Your task to perform on an android device: open sync settings in chrome Image 0: 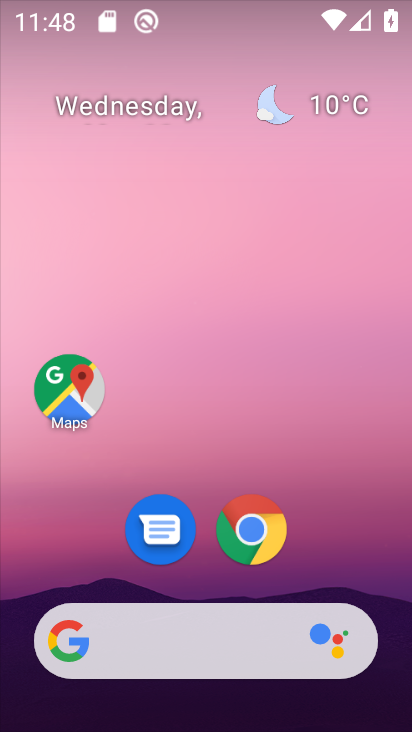
Step 0: click (240, 523)
Your task to perform on an android device: open sync settings in chrome Image 1: 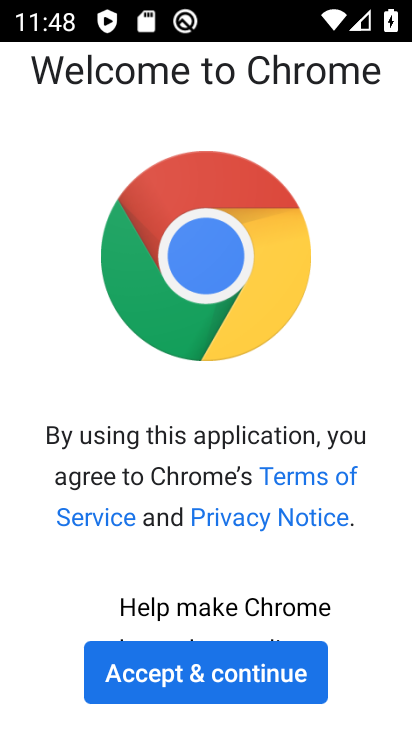
Step 1: click (225, 685)
Your task to perform on an android device: open sync settings in chrome Image 2: 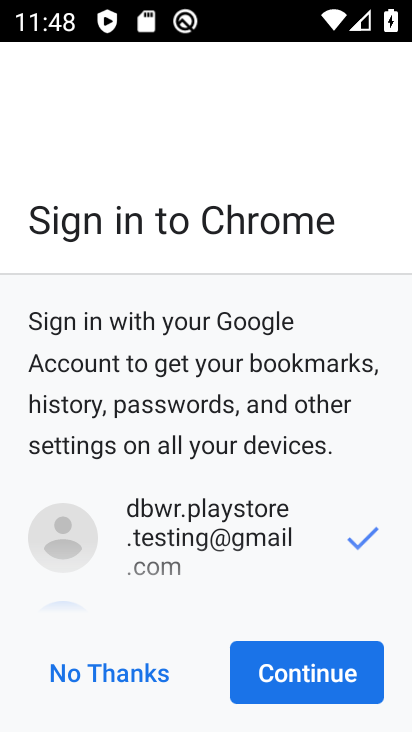
Step 2: click (332, 688)
Your task to perform on an android device: open sync settings in chrome Image 3: 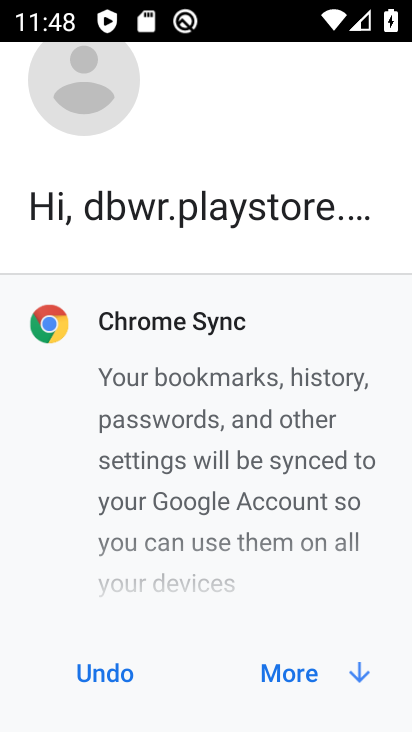
Step 3: click (343, 681)
Your task to perform on an android device: open sync settings in chrome Image 4: 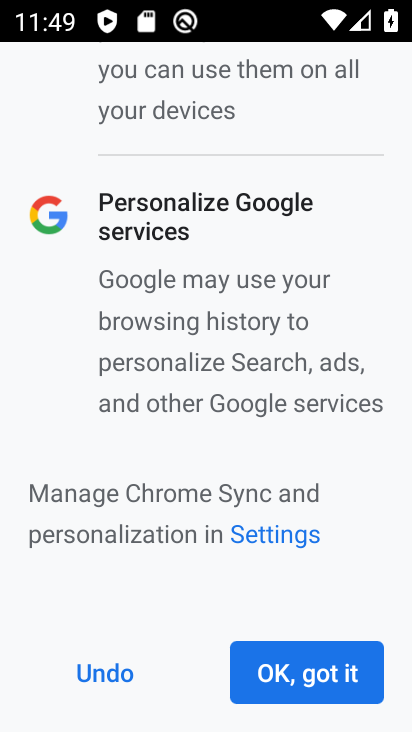
Step 4: click (347, 677)
Your task to perform on an android device: open sync settings in chrome Image 5: 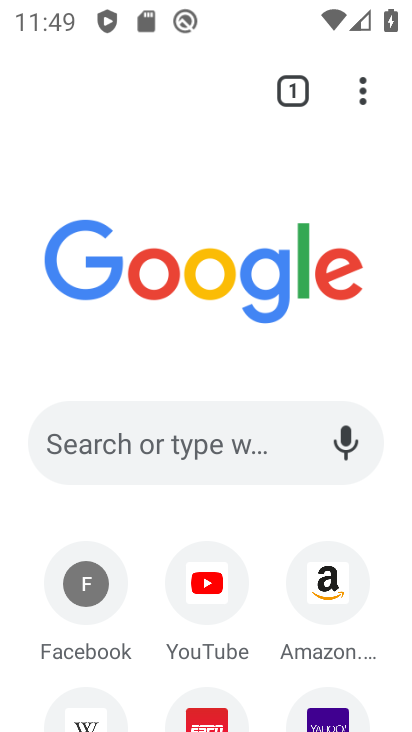
Step 5: click (366, 95)
Your task to perform on an android device: open sync settings in chrome Image 6: 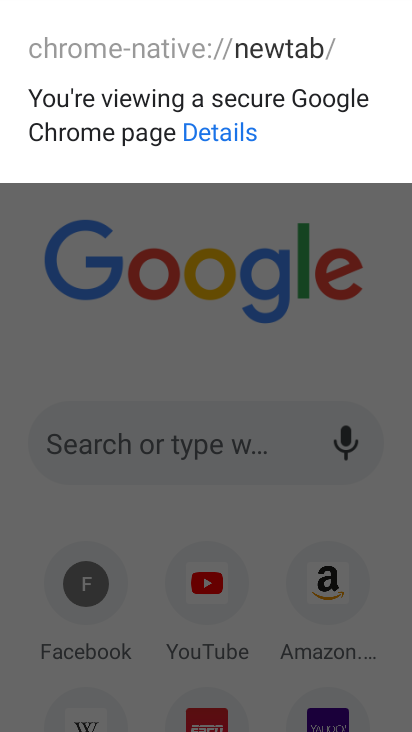
Step 6: click (353, 157)
Your task to perform on an android device: open sync settings in chrome Image 7: 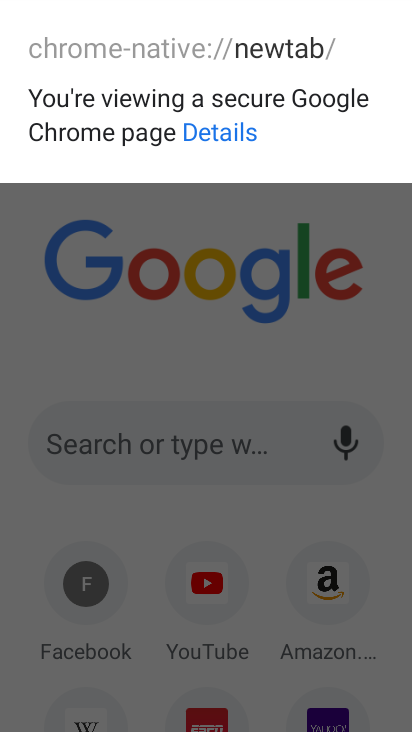
Step 7: click (344, 203)
Your task to perform on an android device: open sync settings in chrome Image 8: 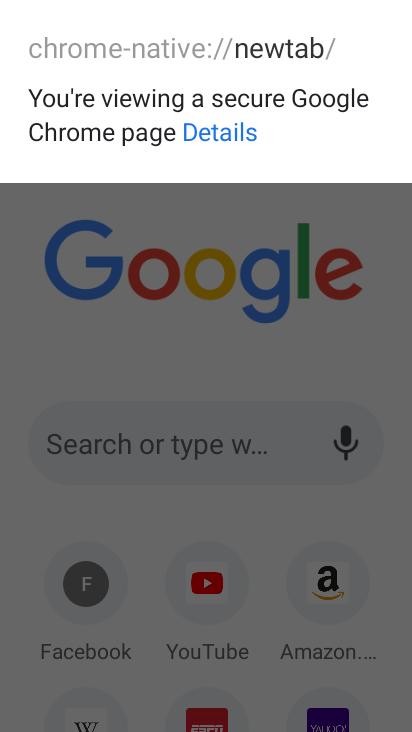
Step 8: click (216, 299)
Your task to perform on an android device: open sync settings in chrome Image 9: 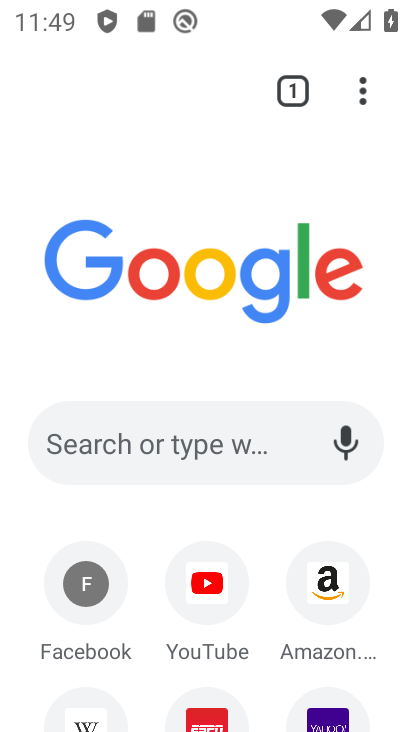
Step 9: click (352, 78)
Your task to perform on an android device: open sync settings in chrome Image 10: 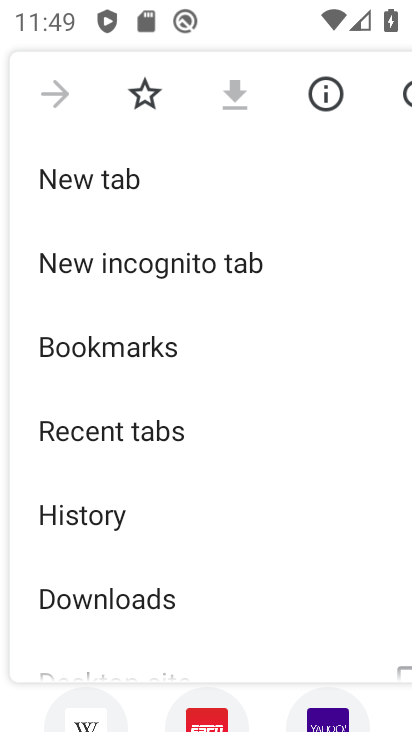
Step 10: drag from (176, 529) to (172, 151)
Your task to perform on an android device: open sync settings in chrome Image 11: 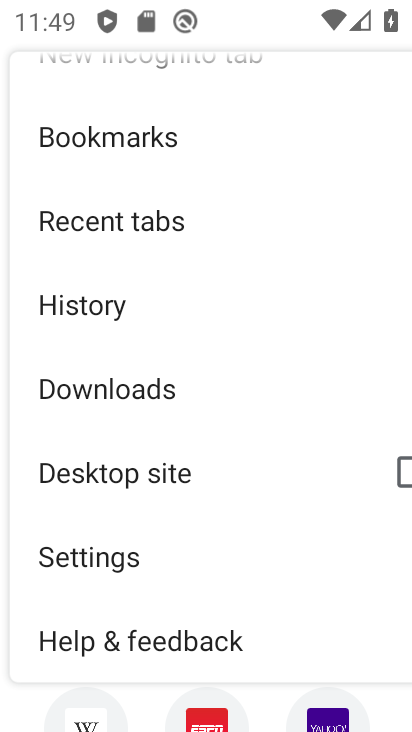
Step 11: click (101, 546)
Your task to perform on an android device: open sync settings in chrome Image 12: 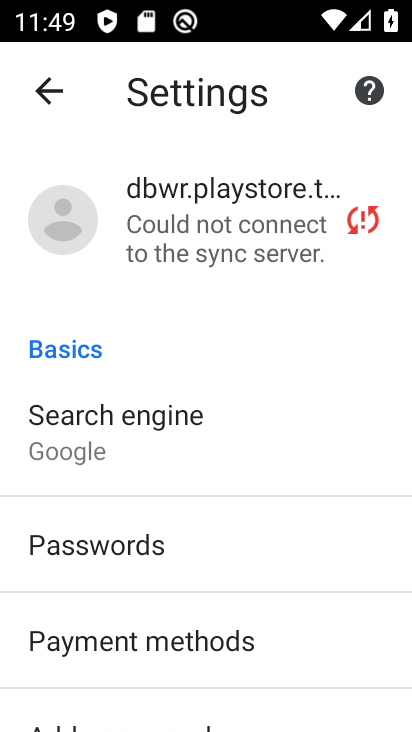
Step 12: click (205, 241)
Your task to perform on an android device: open sync settings in chrome Image 13: 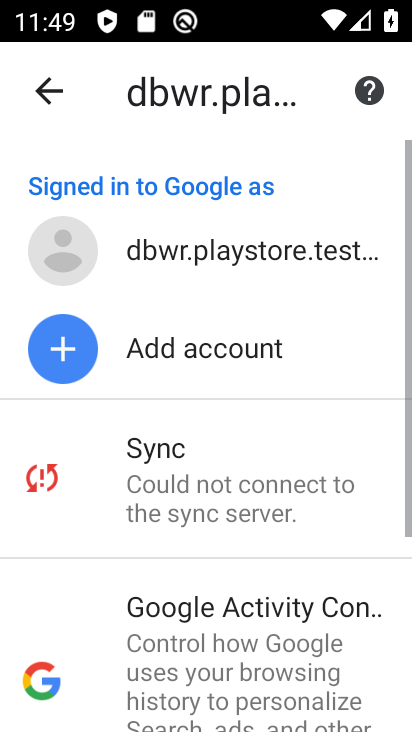
Step 13: click (223, 474)
Your task to perform on an android device: open sync settings in chrome Image 14: 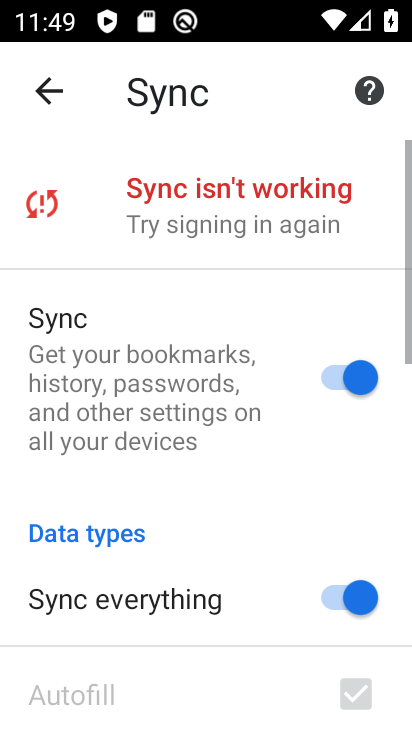
Step 14: task complete